Your task to perform on an android device: turn pop-ups on in chrome Image 0: 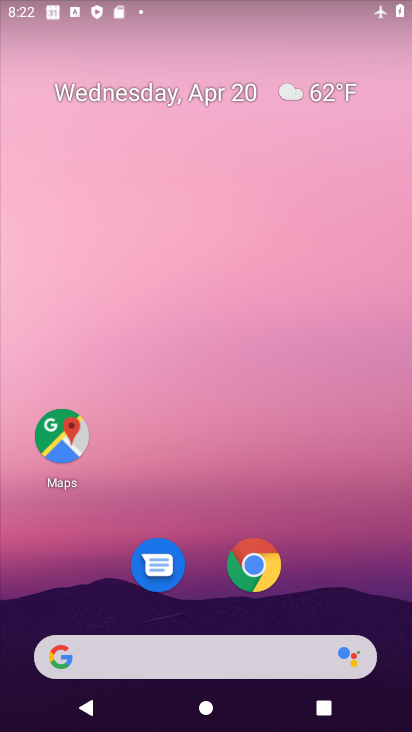
Step 0: drag from (295, 515) to (226, 50)
Your task to perform on an android device: turn pop-ups on in chrome Image 1: 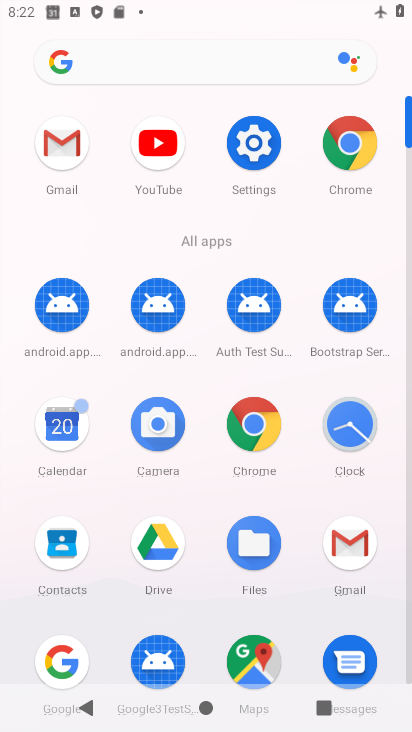
Step 1: click (342, 158)
Your task to perform on an android device: turn pop-ups on in chrome Image 2: 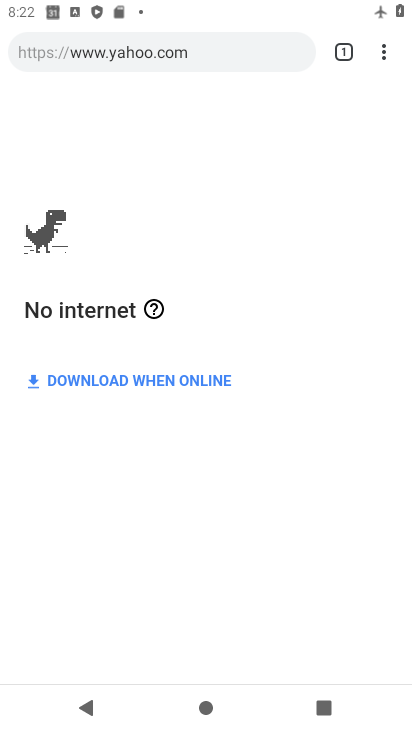
Step 2: drag from (378, 64) to (194, 602)
Your task to perform on an android device: turn pop-ups on in chrome Image 3: 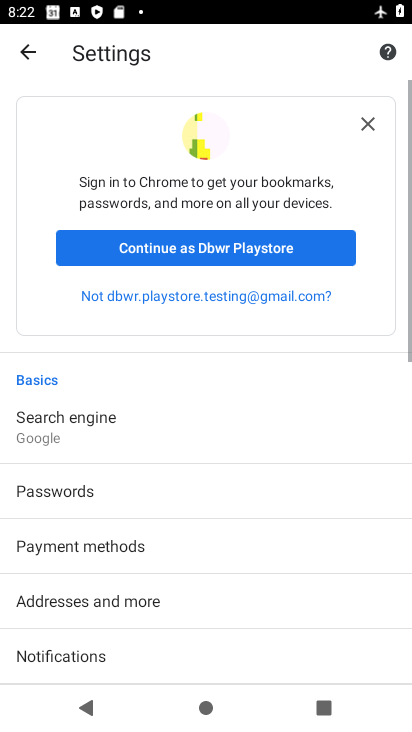
Step 3: drag from (194, 602) to (208, 231)
Your task to perform on an android device: turn pop-ups on in chrome Image 4: 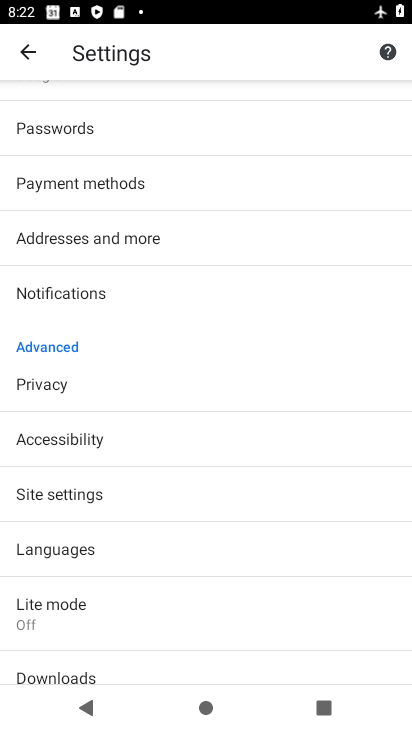
Step 4: click (75, 497)
Your task to perform on an android device: turn pop-ups on in chrome Image 5: 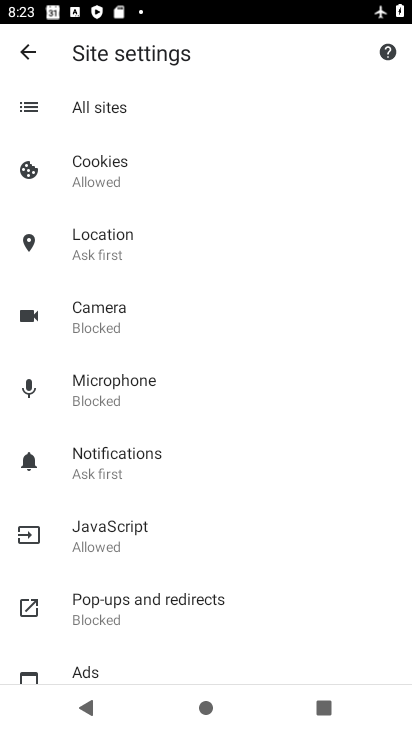
Step 5: click (115, 623)
Your task to perform on an android device: turn pop-ups on in chrome Image 6: 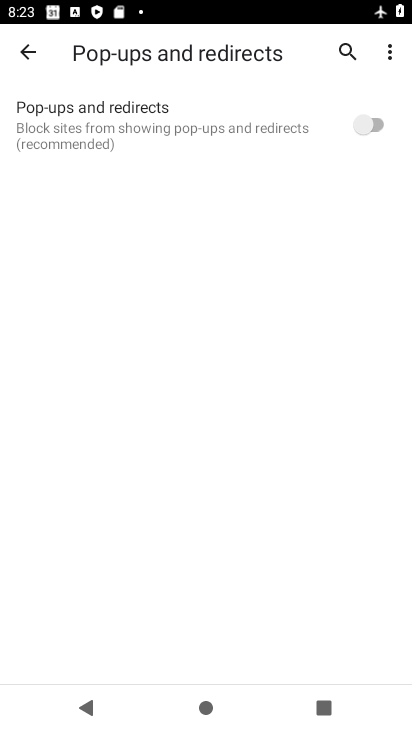
Step 6: click (367, 138)
Your task to perform on an android device: turn pop-ups on in chrome Image 7: 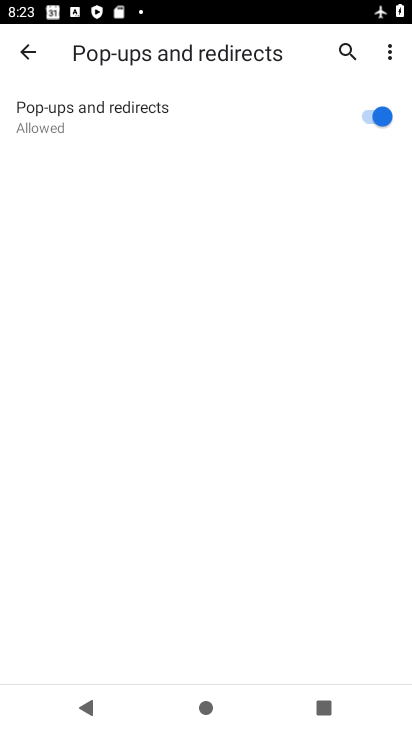
Step 7: task complete